Your task to perform on an android device: open a new tab in the chrome app Image 0: 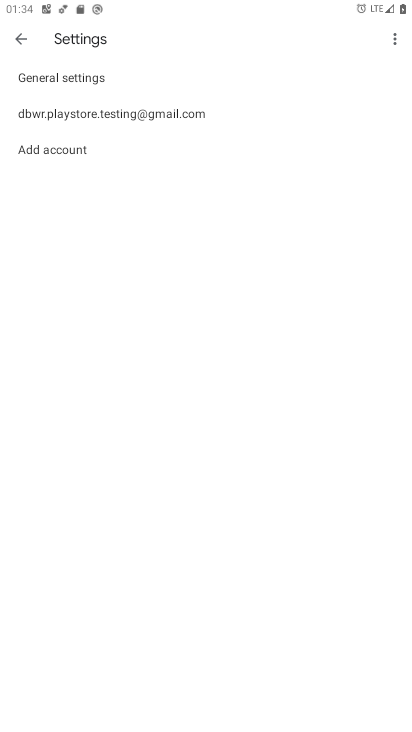
Step 0: press home button
Your task to perform on an android device: open a new tab in the chrome app Image 1: 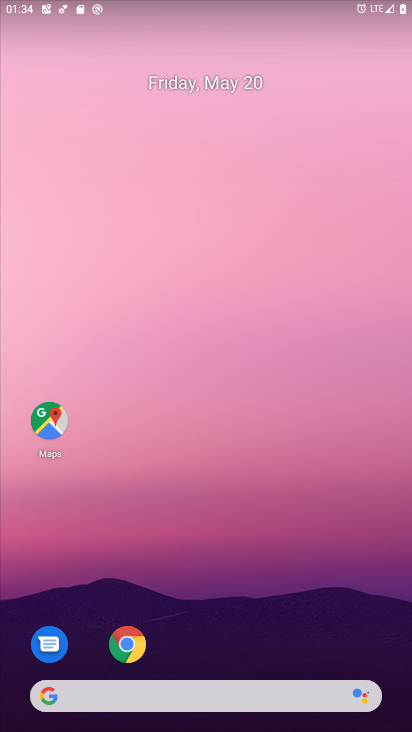
Step 1: click (129, 645)
Your task to perform on an android device: open a new tab in the chrome app Image 2: 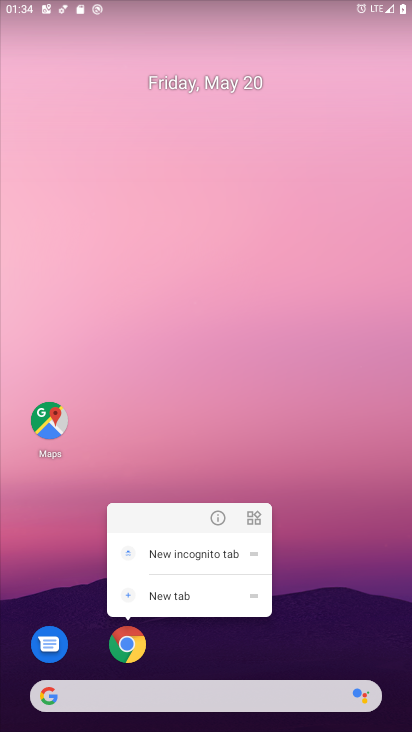
Step 2: click (129, 645)
Your task to perform on an android device: open a new tab in the chrome app Image 3: 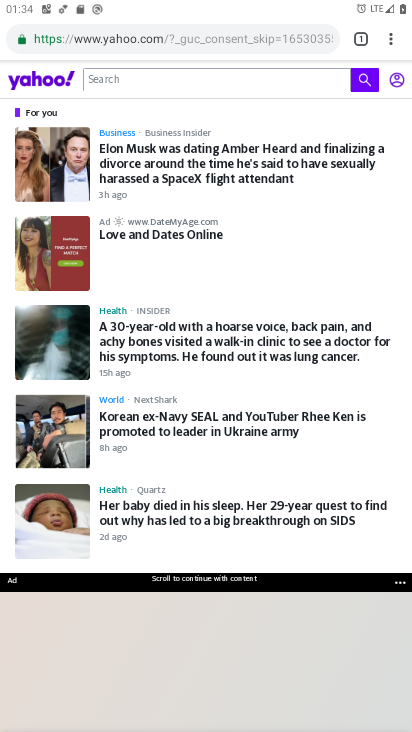
Step 3: click (395, 41)
Your task to perform on an android device: open a new tab in the chrome app Image 4: 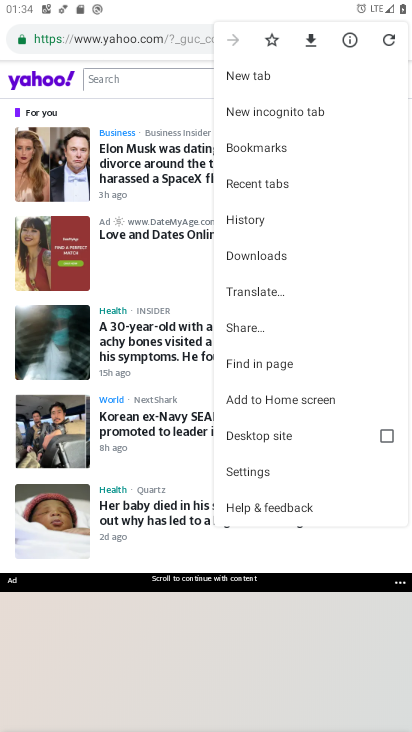
Step 4: click (258, 69)
Your task to perform on an android device: open a new tab in the chrome app Image 5: 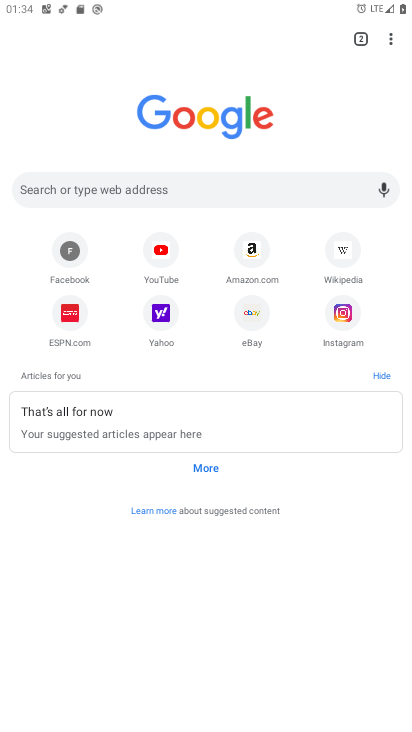
Step 5: task complete